Your task to perform on an android device: Turn off the flashlight Image 0: 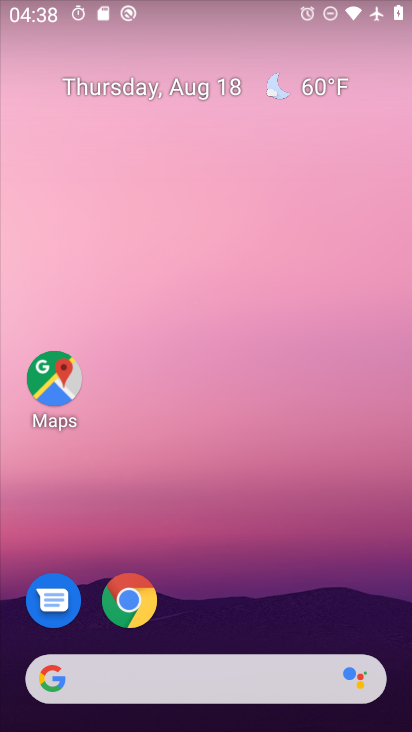
Step 0: press home button
Your task to perform on an android device: Turn off the flashlight Image 1: 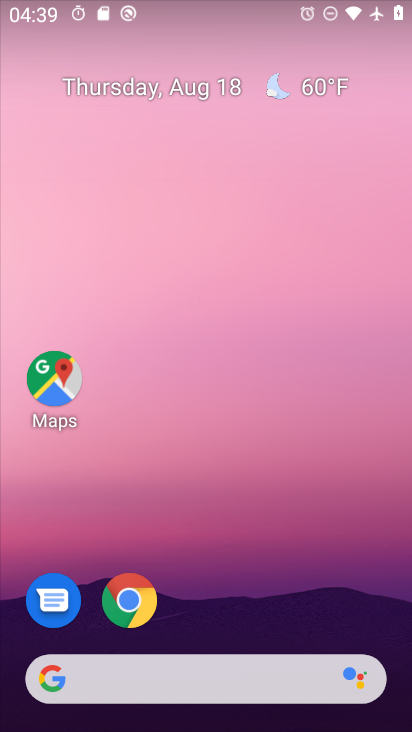
Step 1: task complete